Your task to perform on an android device: open chrome and create a bookmark for the current page Image 0: 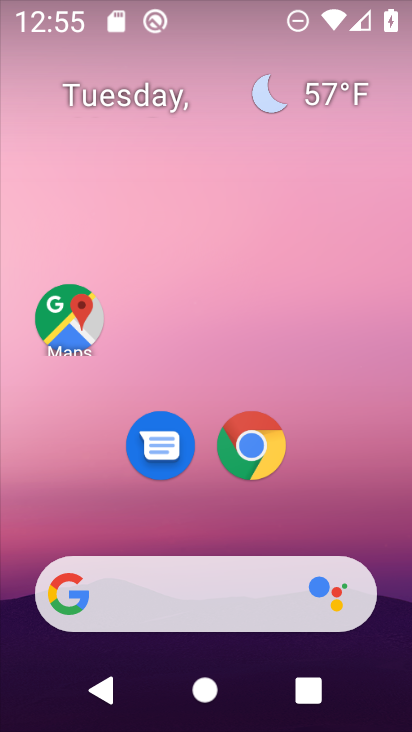
Step 0: drag from (383, 541) to (346, 168)
Your task to perform on an android device: open chrome and create a bookmark for the current page Image 1: 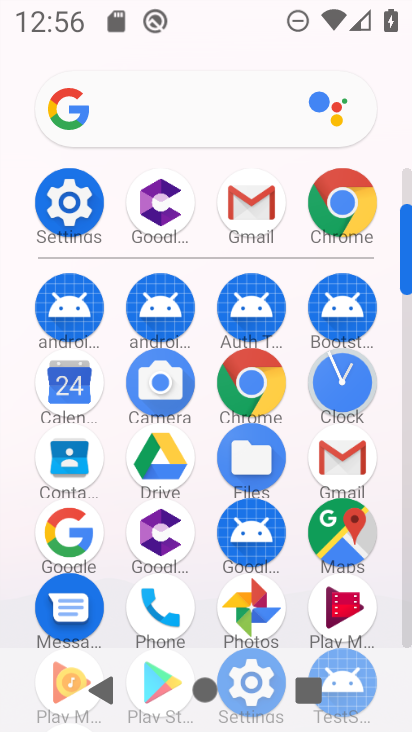
Step 1: click (235, 376)
Your task to perform on an android device: open chrome and create a bookmark for the current page Image 2: 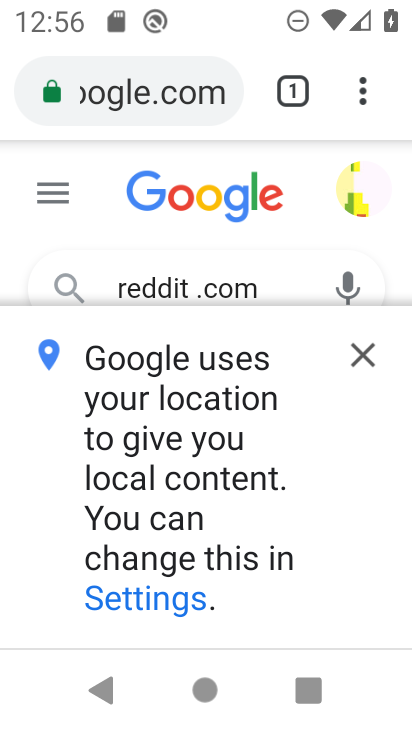
Step 2: click (365, 102)
Your task to perform on an android device: open chrome and create a bookmark for the current page Image 3: 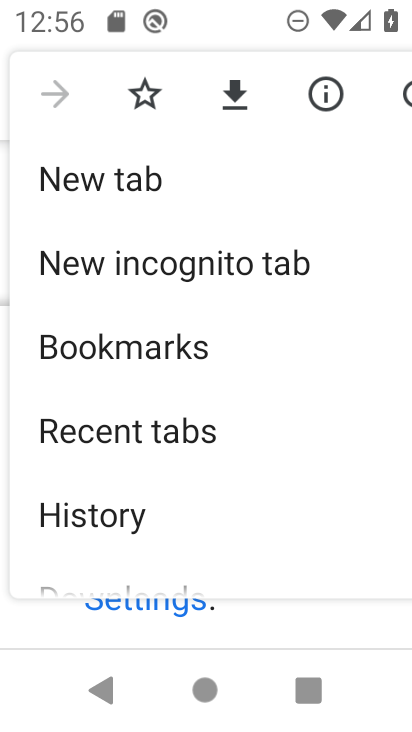
Step 3: click (145, 97)
Your task to perform on an android device: open chrome and create a bookmark for the current page Image 4: 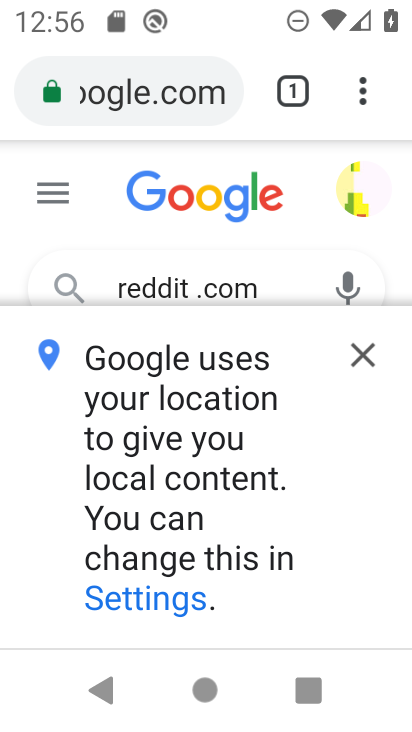
Step 4: task complete